Your task to perform on an android device: Open privacy settings Image 0: 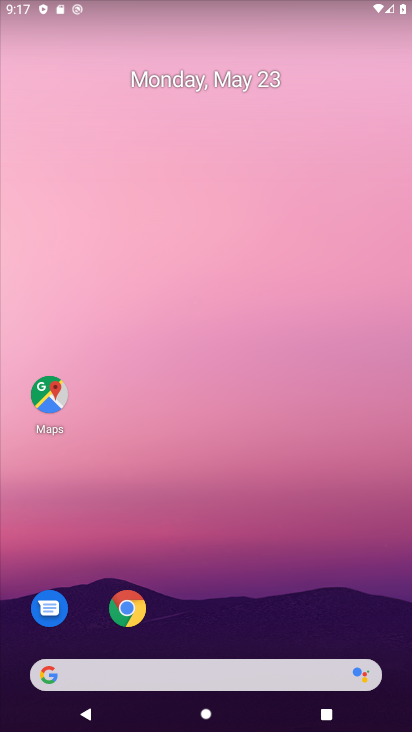
Step 0: click (283, 489)
Your task to perform on an android device: Open privacy settings Image 1: 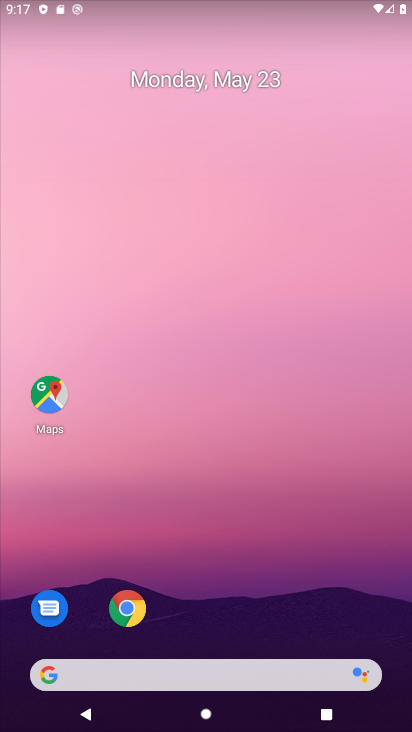
Step 1: click (283, 489)
Your task to perform on an android device: Open privacy settings Image 2: 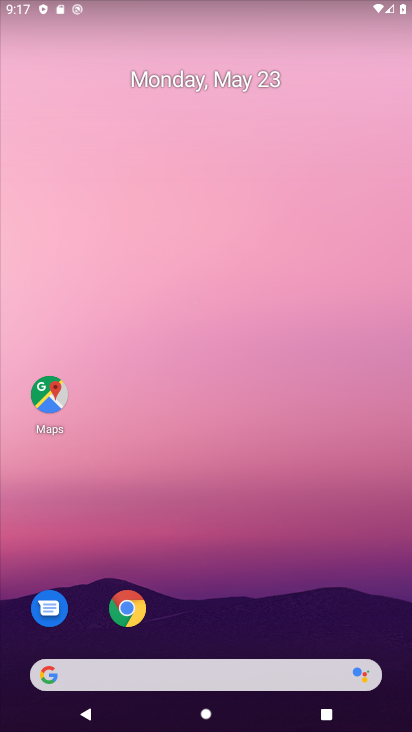
Step 2: drag from (211, 623) to (160, 188)
Your task to perform on an android device: Open privacy settings Image 3: 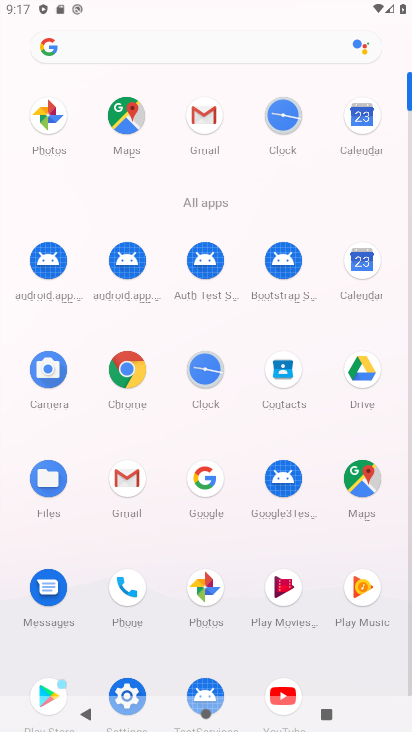
Step 3: click (124, 687)
Your task to perform on an android device: Open privacy settings Image 4: 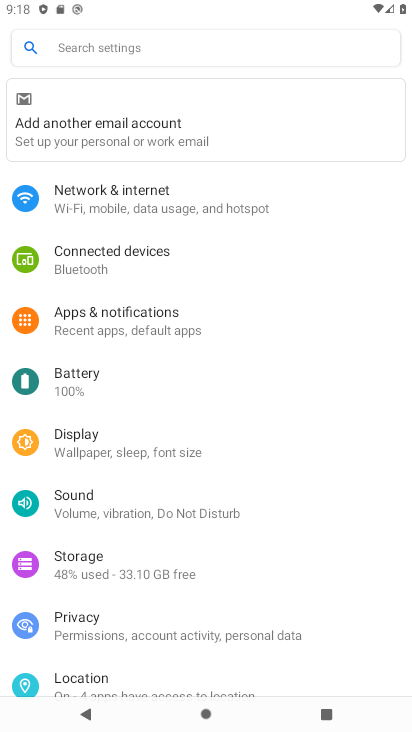
Step 4: click (55, 622)
Your task to perform on an android device: Open privacy settings Image 5: 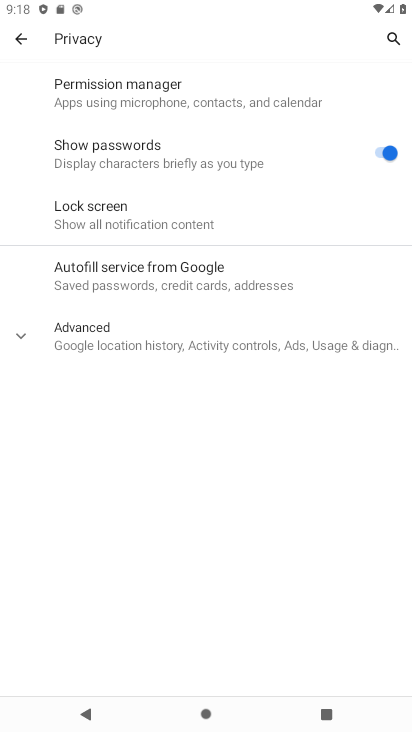
Step 5: task complete